Your task to perform on an android device: Open Chrome and go to the settings page Image 0: 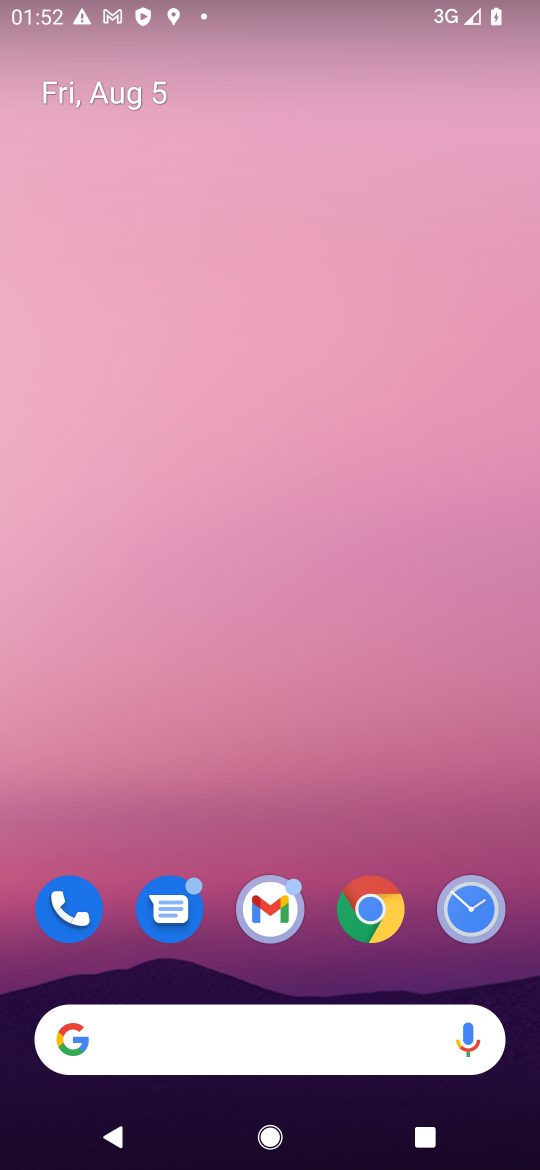
Step 0: click (369, 909)
Your task to perform on an android device: Open Chrome and go to the settings page Image 1: 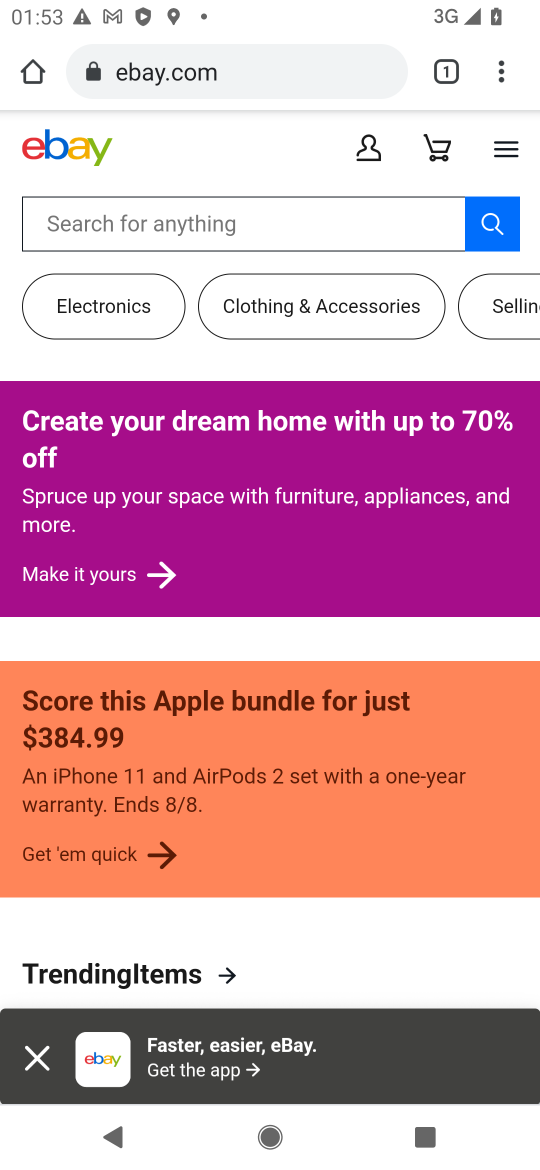
Step 1: click (505, 72)
Your task to perform on an android device: Open Chrome and go to the settings page Image 2: 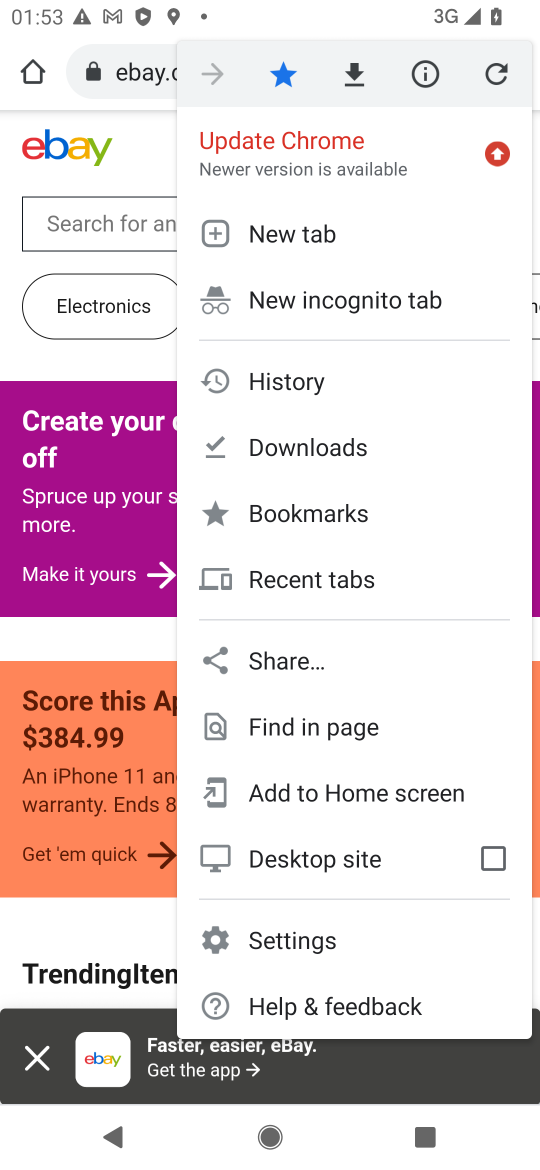
Step 2: click (284, 932)
Your task to perform on an android device: Open Chrome and go to the settings page Image 3: 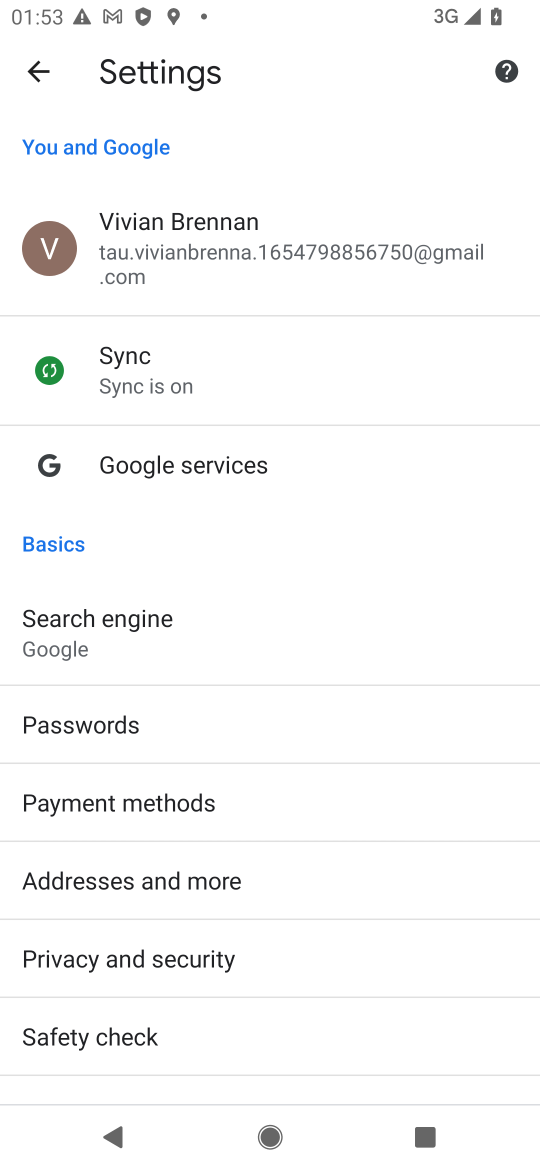
Step 3: task complete